Your task to perform on an android device: see sites visited before in the chrome app Image 0: 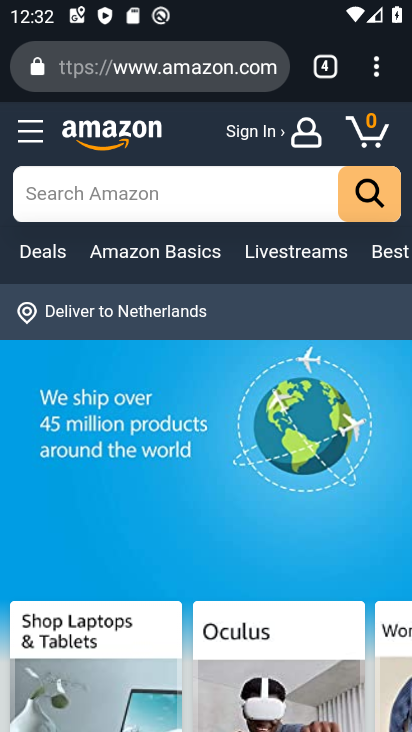
Step 0: click (379, 64)
Your task to perform on an android device: see sites visited before in the chrome app Image 1: 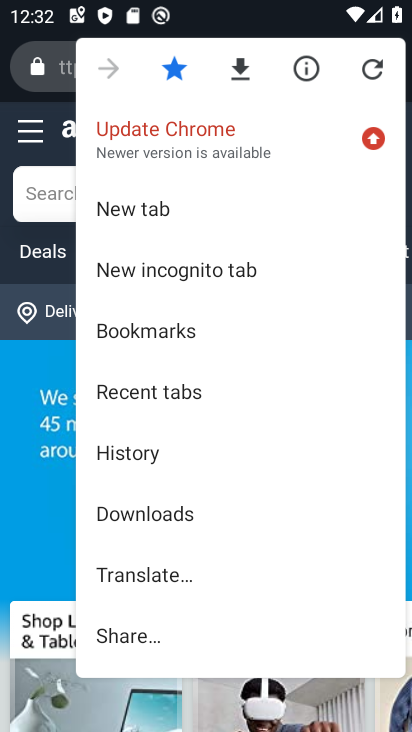
Step 1: drag from (263, 495) to (255, 105)
Your task to perform on an android device: see sites visited before in the chrome app Image 2: 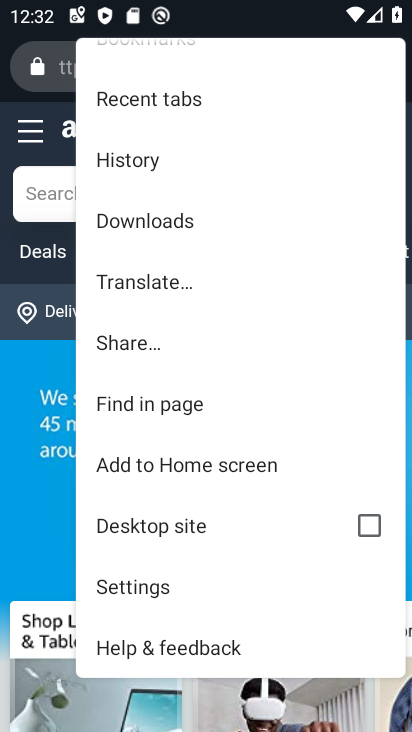
Step 2: click (201, 100)
Your task to perform on an android device: see sites visited before in the chrome app Image 3: 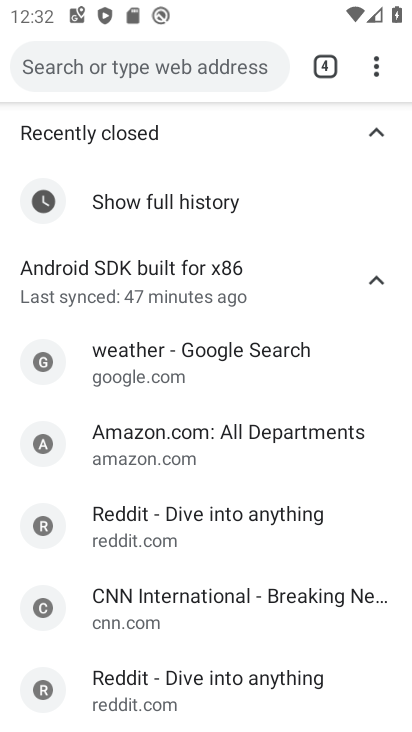
Step 3: task complete